Your task to perform on an android device: Open my contact list Image 0: 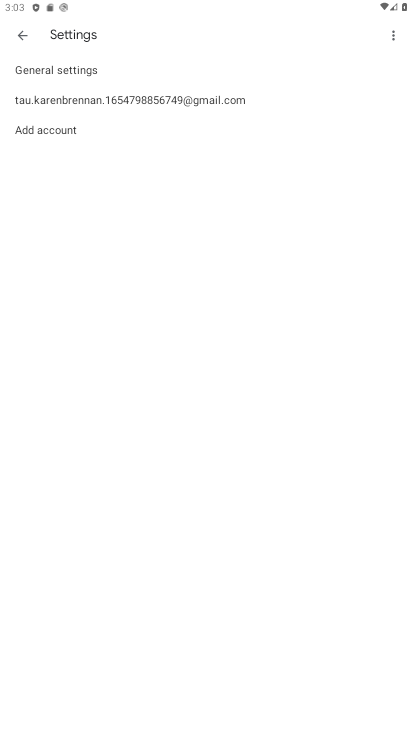
Step 0: drag from (199, 643) to (260, 177)
Your task to perform on an android device: Open my contact list Image 1: 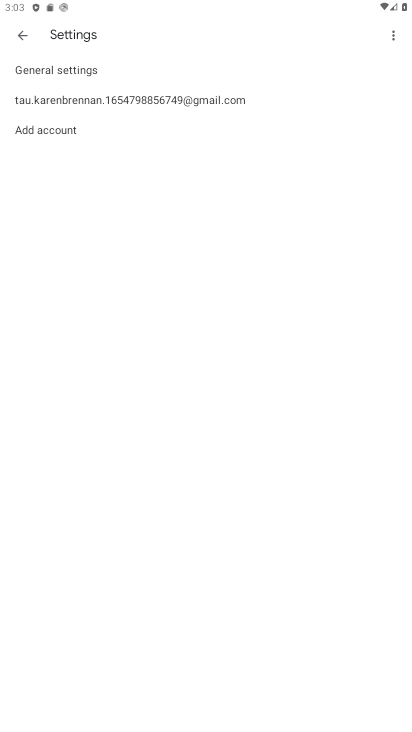
Step 1: drag from (181, 672) to (236, 217)
Your task to perform on an android device: Open my contact list Image 2: 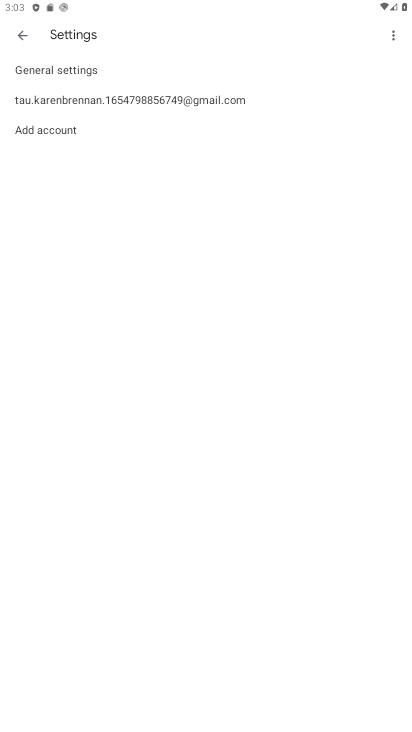
Step 2: drag from (143, 639) to (196, 300)
Your task to perform on an android device: Open my contact list Image 3: 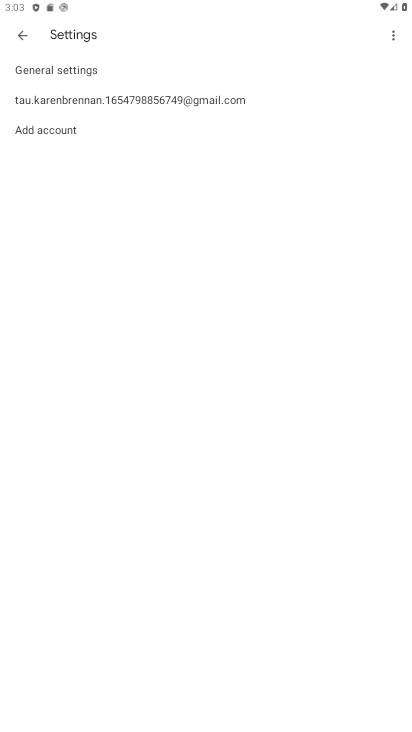
Step 3: drag from (229, 574) to (267, 274)
Your task to perform on an android device: Open my contact list Image 4: 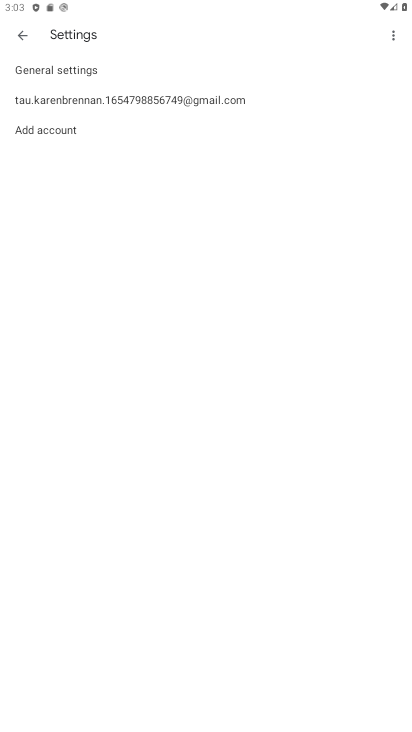
Step 4: drag from (255, 607) to (289, 363)
Your task to perform on an android device: Open my contact list Image 5: 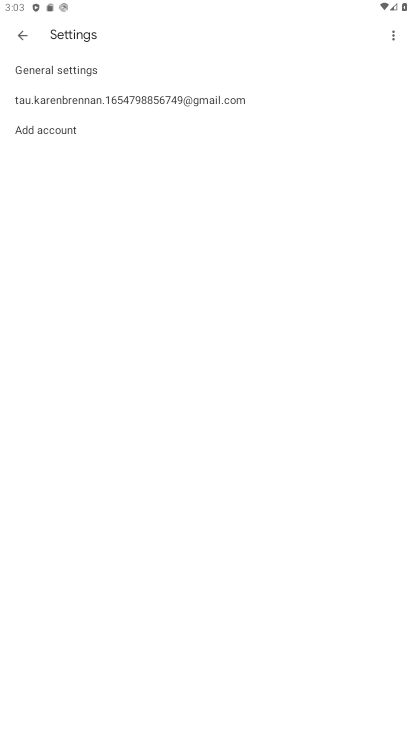
Step 5: press home button
Your task to perform on an android device: Open my contact list Image 6: 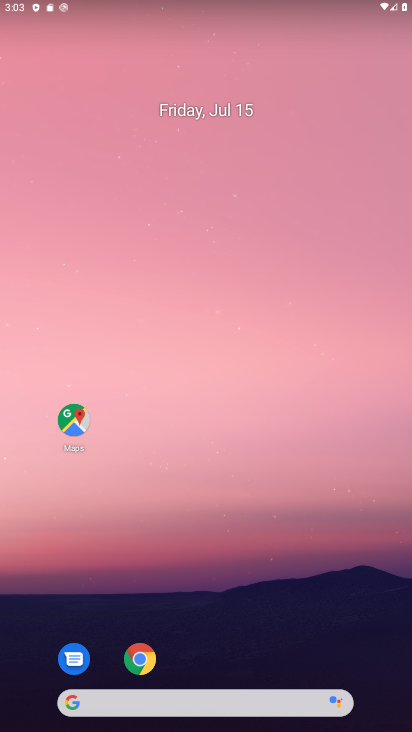
Step 6: drag from (203, 667) to (216, 329)
Your task to perform on an android device: Open my contact list Image 7: 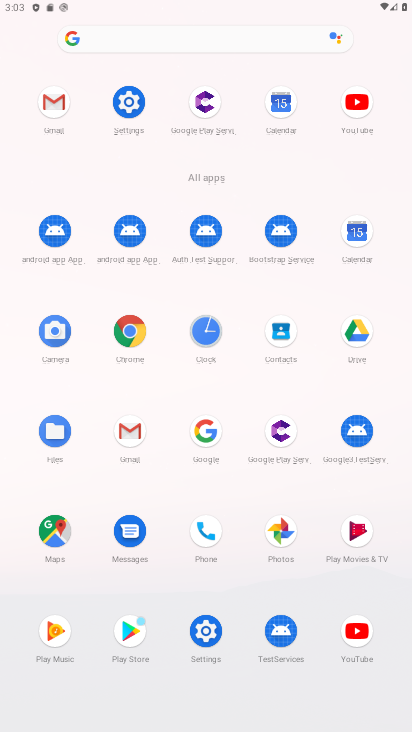
Step 7: click (285, 345)
Your task to perform on an android device: Open my contact list Image 8: 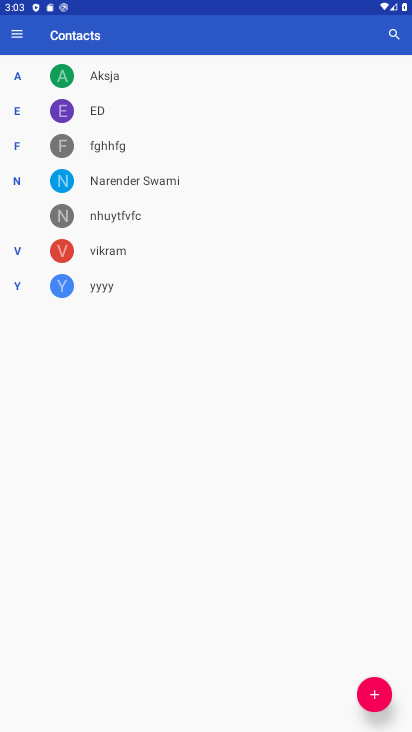
Step 8: task complete